Your task to perform on an android device: make emails show in primary in the gmail app Image 0: 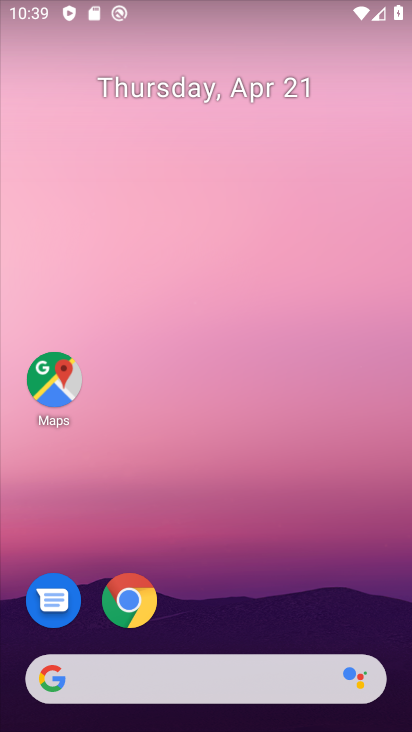
Step 0: drag from (296, 408) to (323, 88)
Your task to perform on an android device: make emails show in primary in the gmail app Image 1: 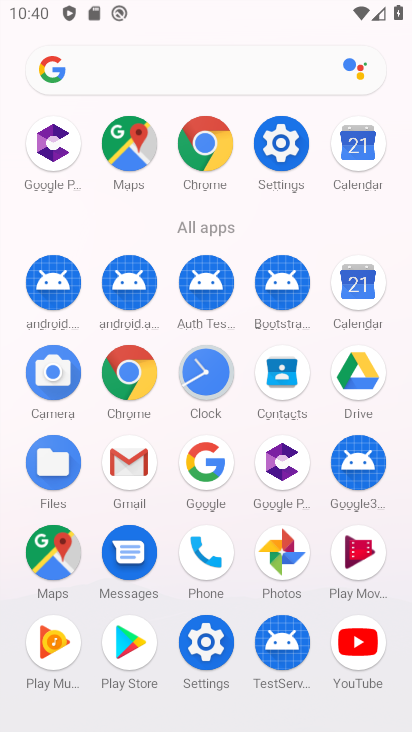
Step 1: click (140, 459)
Your task to perform on an android device: make emails show in primary in the gmail app Image 2: 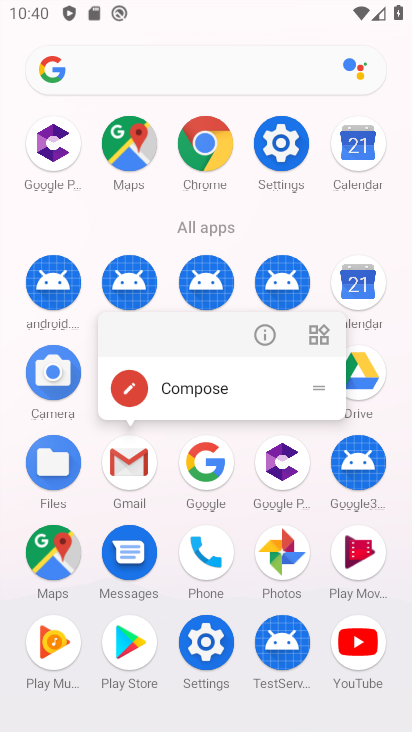
Step 2: click (136, 453)
Your task to perform on an android device: make emails show in primary in the gmail app Image 3: 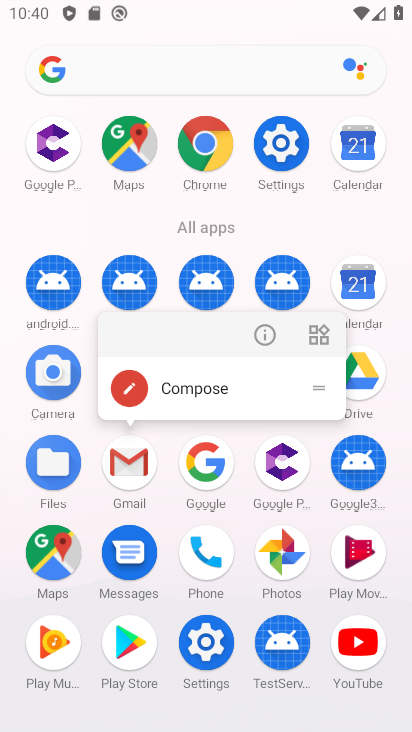
Step 3: click (136, 452)
Your task to perform on an android device: make emails show in primary in the gmail app Image 4: 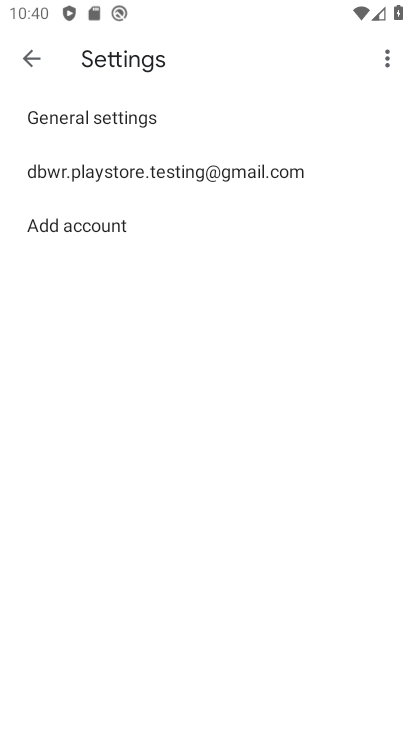
Step 4: click (122, 175)
Your task to perform on an android device: make emails show in primary in the gmail app Image 5: 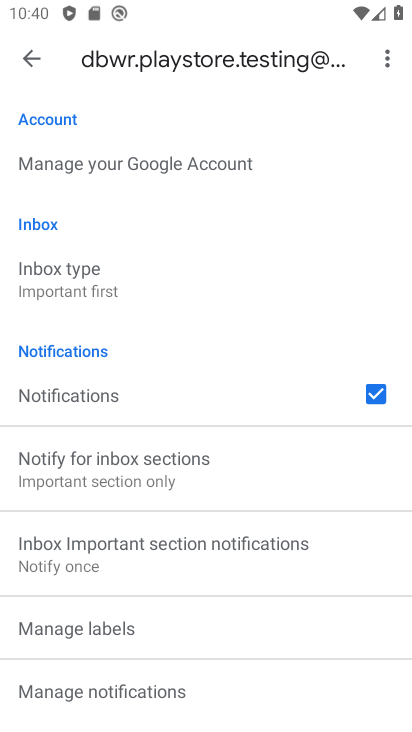
Step 5: click (43, 271)
Your task to perform on an android device: make emails show in primary in the gmail app Image 6: 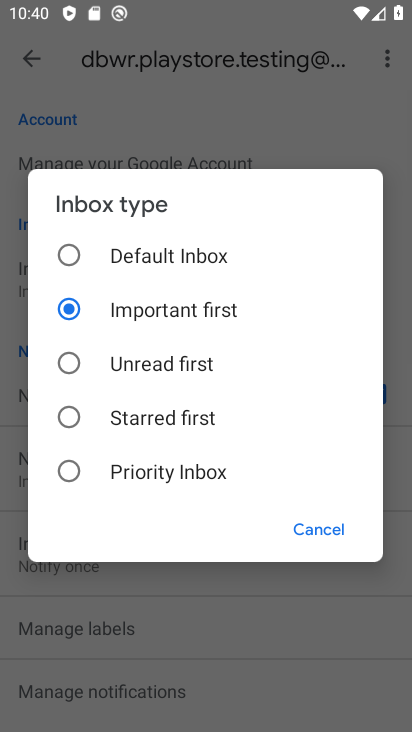
Step 6: click (98, 262)
Your task to perform on an android device: make emails show in primary in the gmail app Image 7: 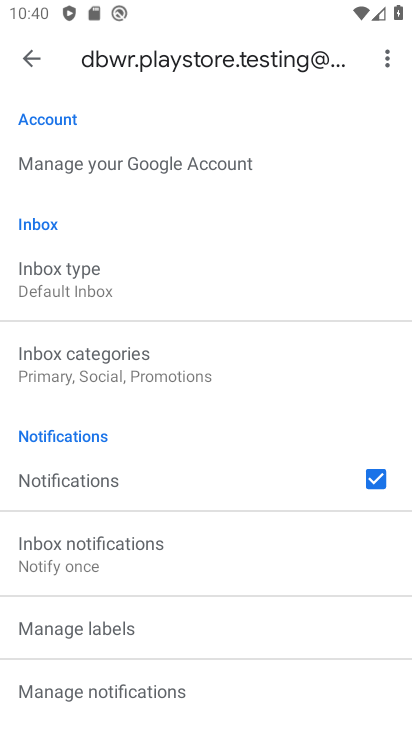
Step 7: task complete